Your task to perform on an android device: Do I have any events tomorrow? Image 0: 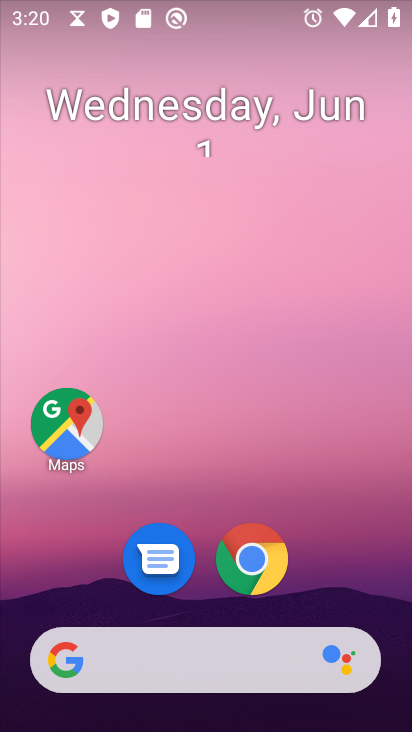
Step 0: drag from (342, 559) to (356, 12)
Your task to perform on an android device: Do I have any events tomorrow? Image 1: 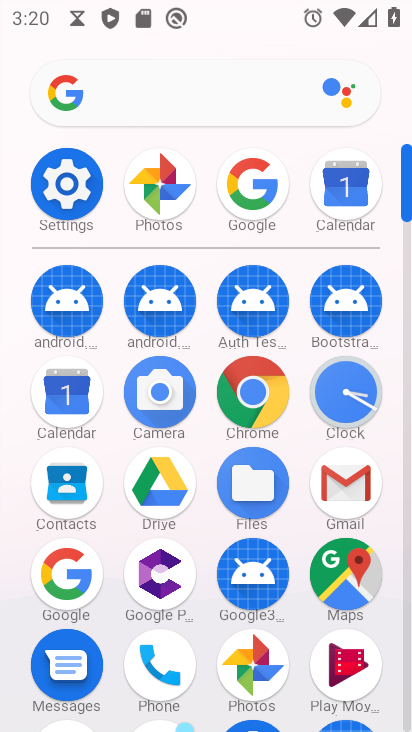
Step 1: click (72, 394)
Your task to perform on an android device: Do I have any events tomorrow? Image 2: 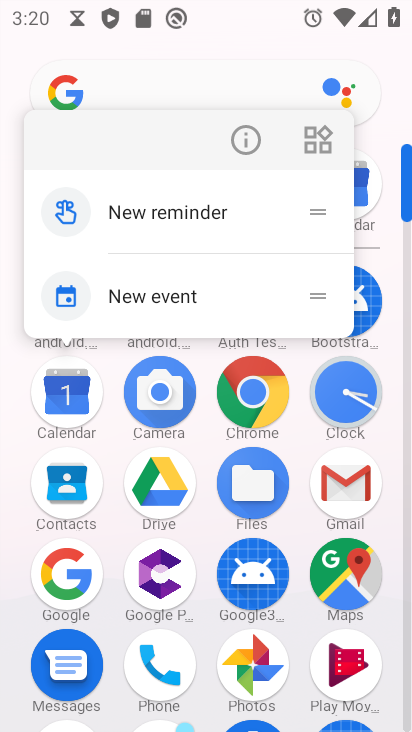
Step 2: click (72, 394)
Your task to perform on an android device: Do I have any events tomorrow? Image 3: 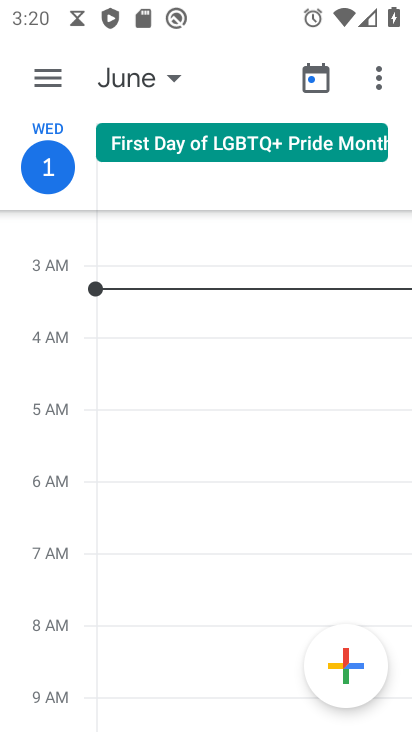
Step 3: click (141, 81)
Your task to perform on an android device: Do I have any events tomorrow? Image 4: 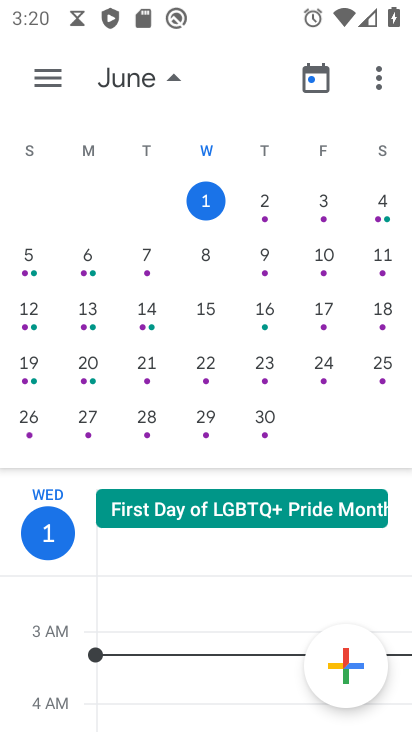
Step 4: click (70, 78)
Your task to perform on an android device: Do I have any events tomorrow? Image 5: 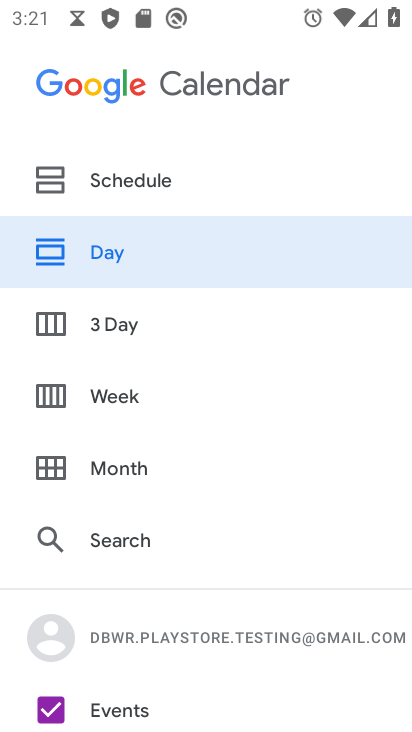
Step 5: click (139, 159)
Your task to perform on an android device: Do I have any events tomorrow? Image 6: 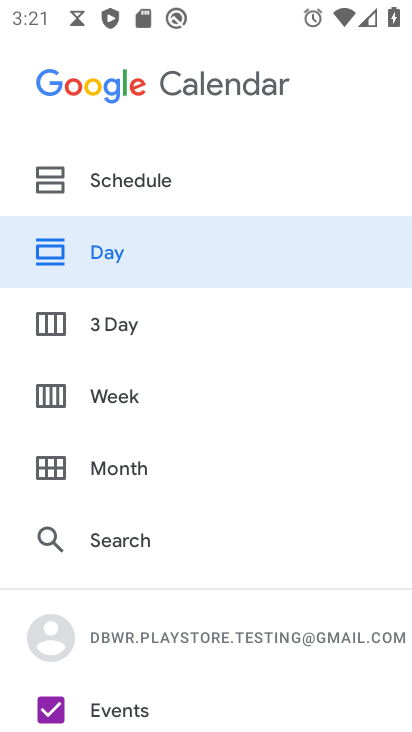
Step 6: click (127, 181)
Your task to perform on an android device: Do I have any events tomorrow? Image 7: 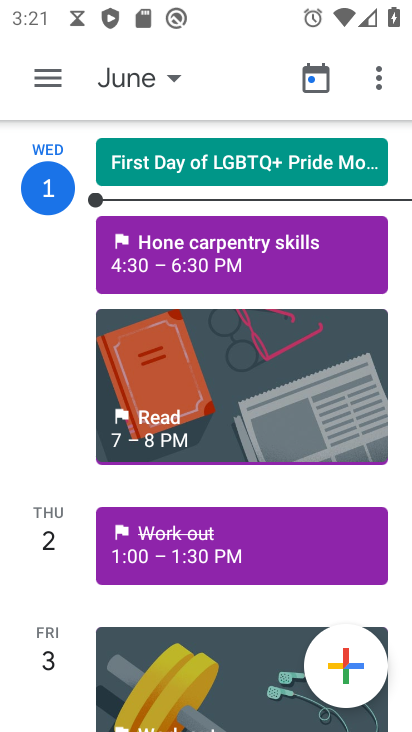
Step 7: click (120, 89)
Your task to perform on an android device: Do I have any events tomorrow? Image 8: 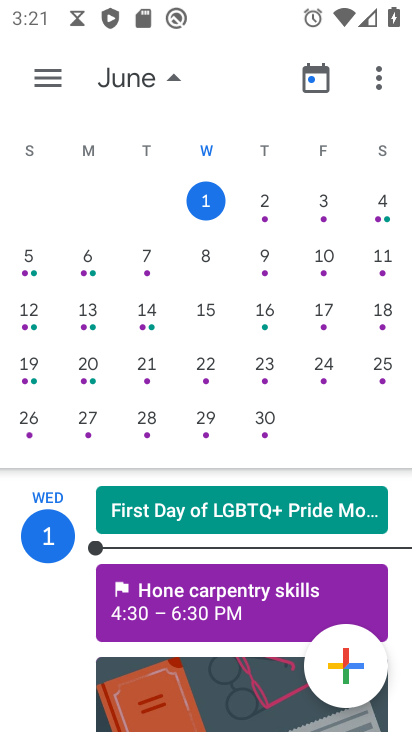
Step 8: click (265, 212)
Your task to perform on an android device: Do I have any events tomorrow? Image 9: 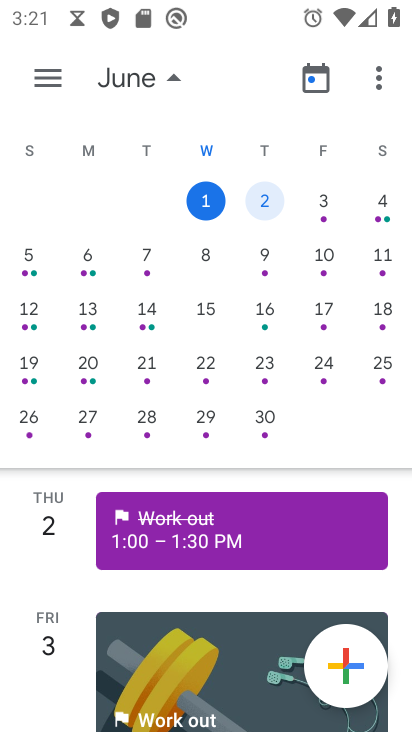
Step 9: task complete